Your task to perform on an android device: Open calendar and show me the fourth week of next month Image 0: 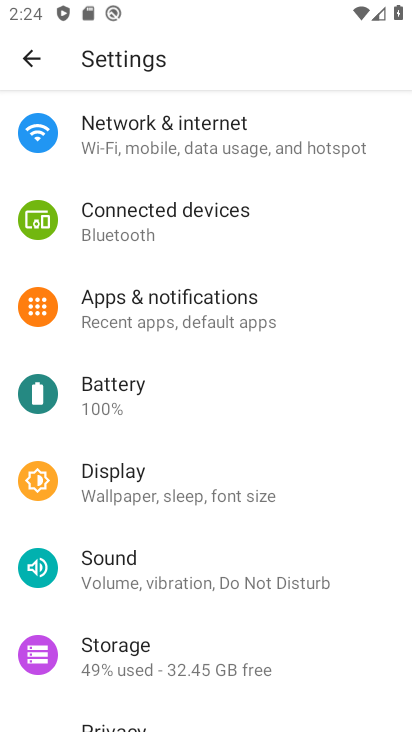
Step 0: press home button
Your task to perform on an android device: Open calendar and show me the fourth week of next month Image 1: 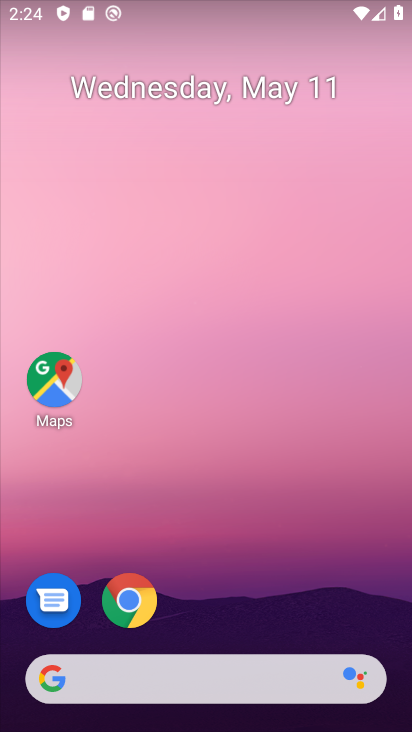
Step 1: drag from (190, 642) to (279, 87)
Your task to perform on an android device: Open calendar and show me the fourth week of next month Image 2: 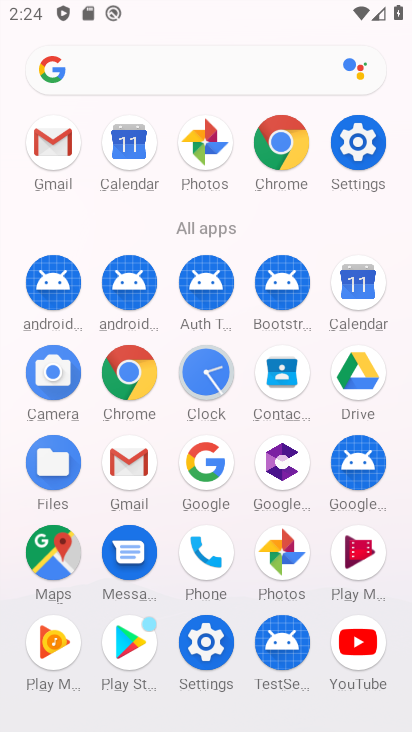
Step 2: click (357, 306)
Your task to perform on an android device: Open calendar and show me the fourth week of next month Image 3: 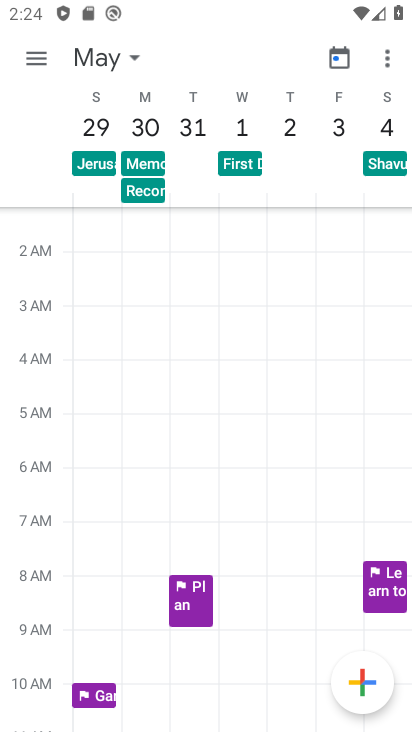
Step 3: click (130, 54)
Your task to perform on an android device: Open calendar and show me the fourth week of next month Image 4: 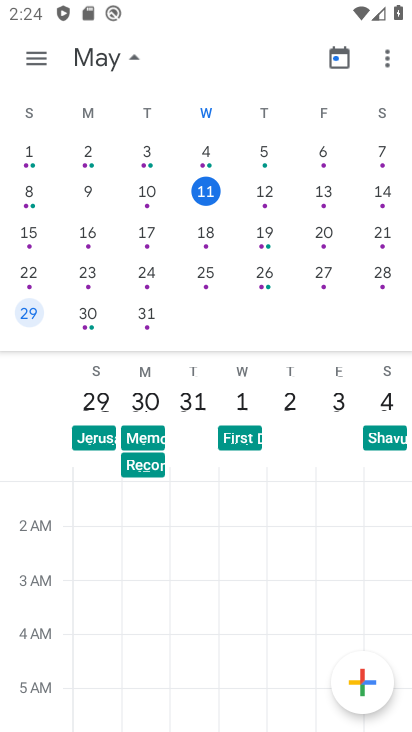
Step 4: drag from (288, 247) to (19, 238)
Your task to perform on an android device: Open calendar and show me the fourth week of next month Image 5: 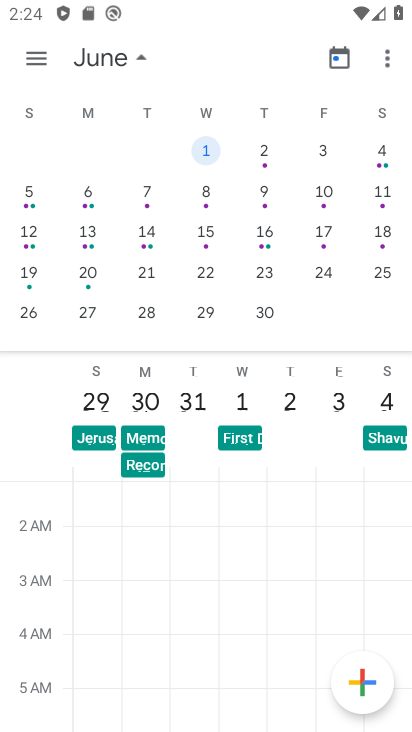
Step 5: click (139, 60)
Your task to perform on an android device: Open calendar and show me the fourth week of next month Image 6: 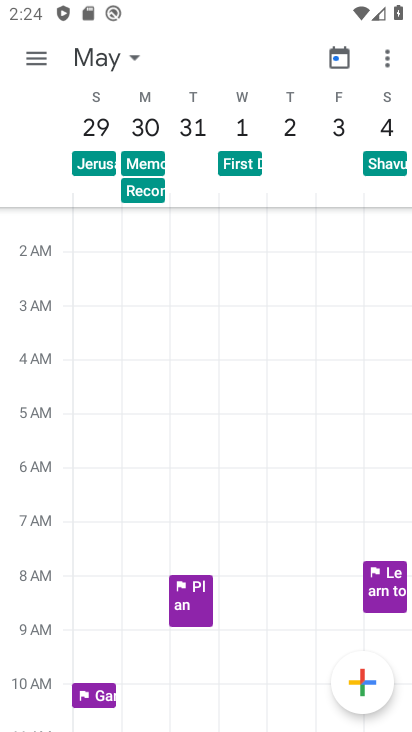
Step 6: task complete